Your task to perform on an android device: change notification settings in the gmail app Image 0: 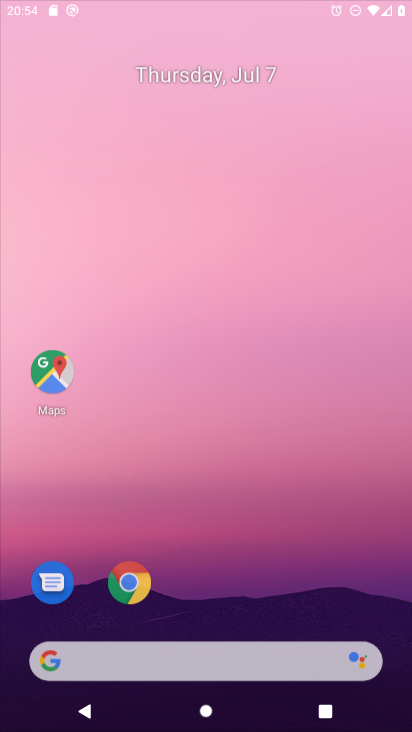
Step 0: drag from (202, 453) to (204, 267)
Your task to perform on an android device: change notification settings in the gmail app Image 1: 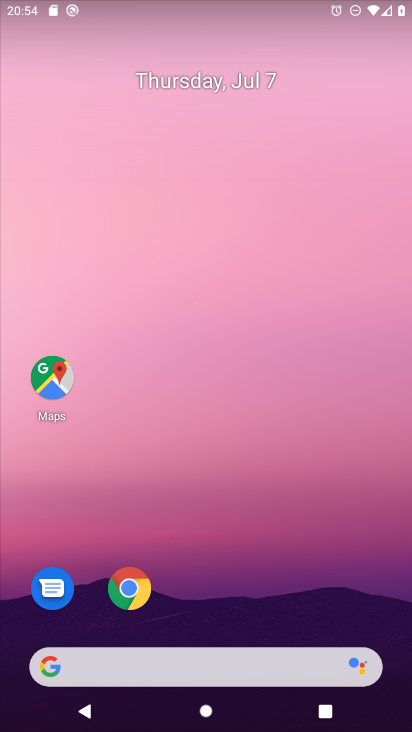
Step 1: drag from (234, 604) to (198, 225)
Your task to perform on an android device: change notification settings in the gmail app Image 2: 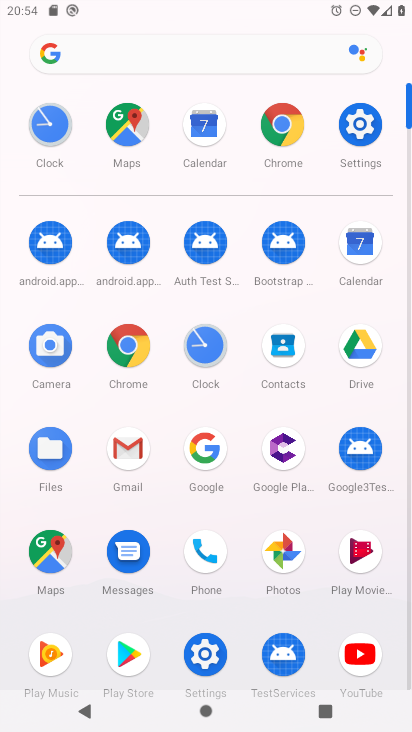
Step 2: click (144, 442)
Your task to perform on an android device: change notification settings in the gmail app Image 3: 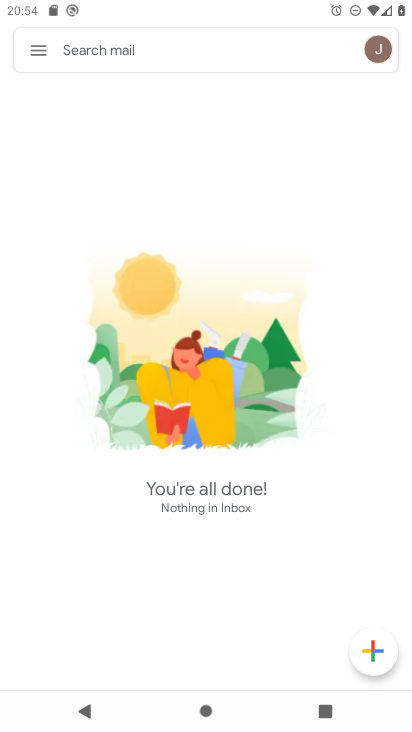
Step 3: click (390, 54)
Your task to perform on an android device: change notification settings in the gmail app Image 4: 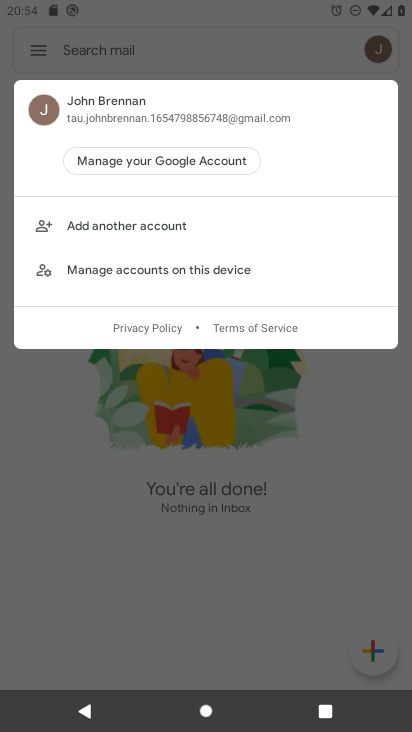
Step 4: click (308, 420)
Your task to perform on an android device: change notification settings in the gmail app Image 5: 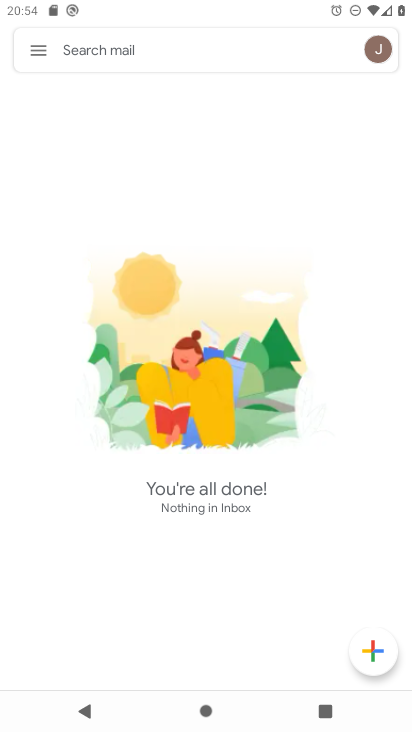
Step 5: click (45, 44)
Your task to perform on an android device: change notification settings in the gmail app Image 6: 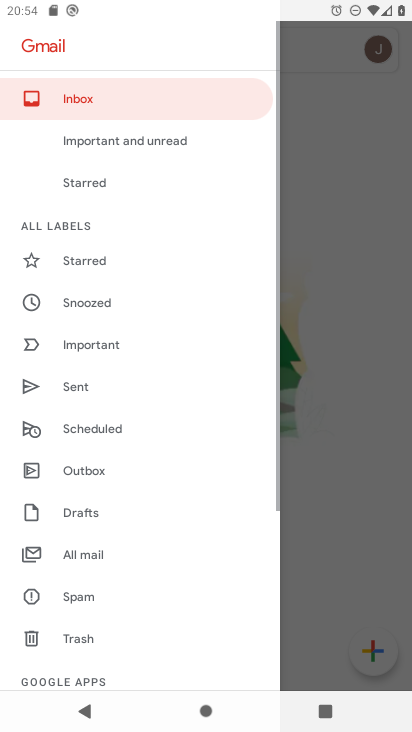
Step 6: drag from (114, 594) to (146, 165)
Your task to perform on an android device: change notification settings in the gmail app Image 7: 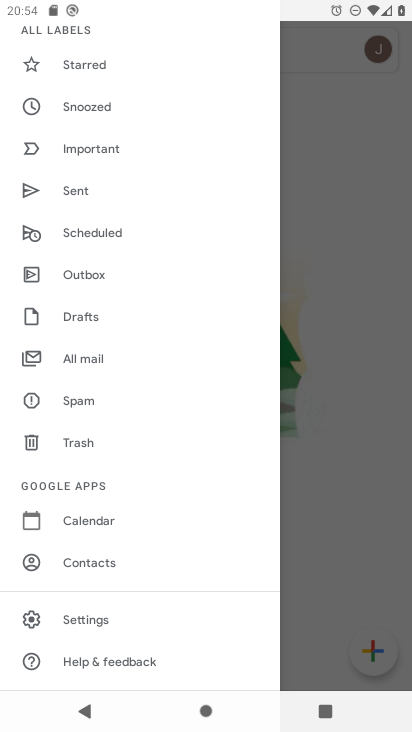
Step 7: click (101, 616)
Your task to perform on an android device: change notification settings in the gmail app Image 8: 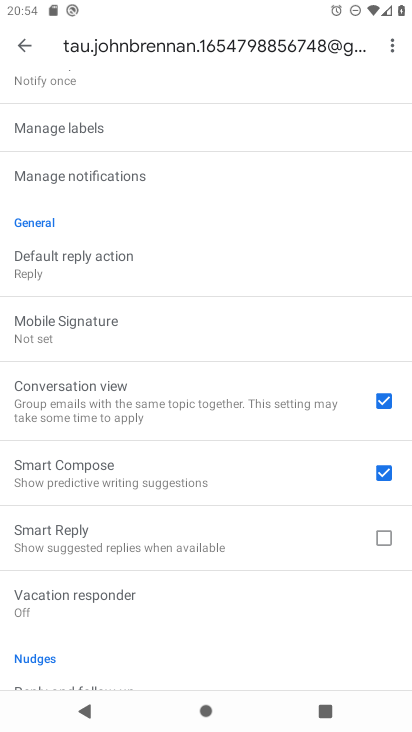
Step 8: drag from (121, 203) to (113, 579)
Your task to perform on an android device: change notification settings in the gmail app Image 9: 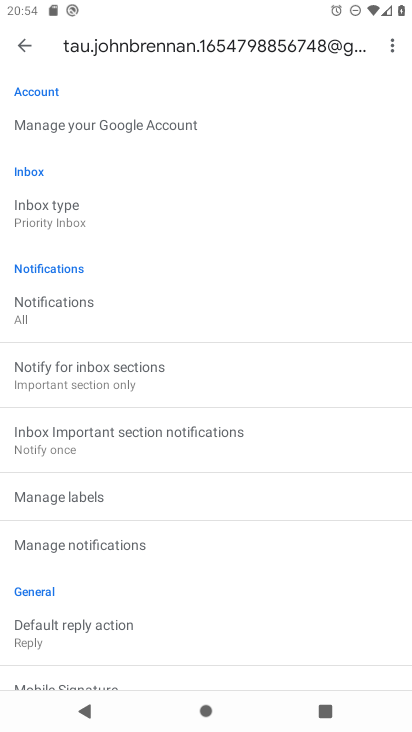
Step 9: click (75, 303)
Your task to perform on an android device: change notification settings in the gmail app Image 10: 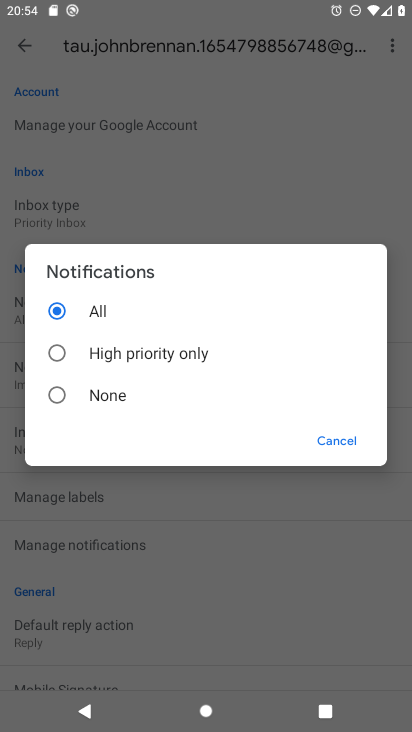
Step 10: click (112, 394)
Your task to perform on an android device: change notification settings in the gmail app Image 11: 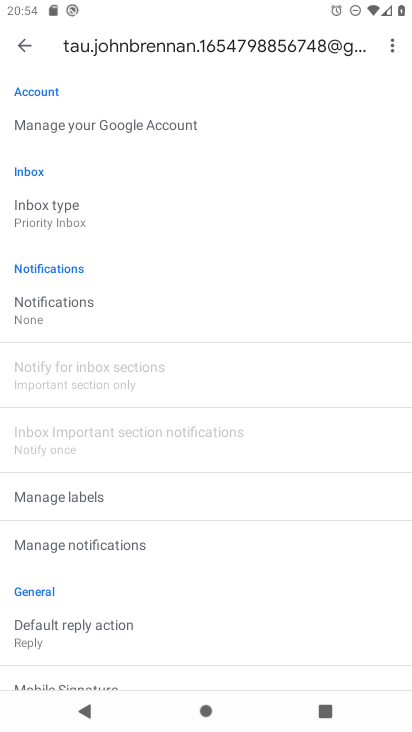
Step 11: task complete